Your task to perform on an android device: clear history in the chrome app Image 0: 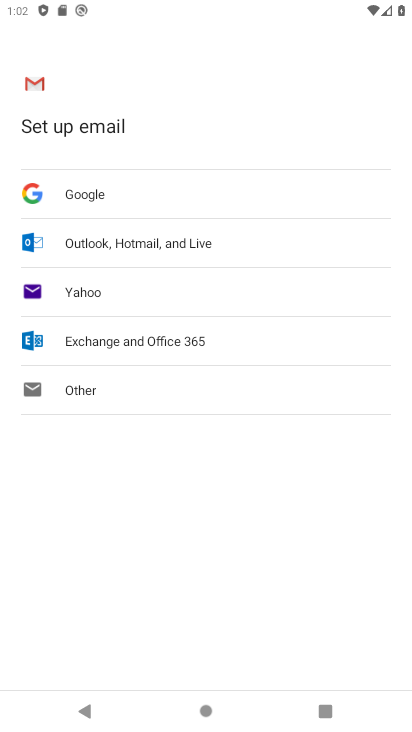
Step 0: press home button
Your task to perform on an android device: clear history in the chrome app Image 1: 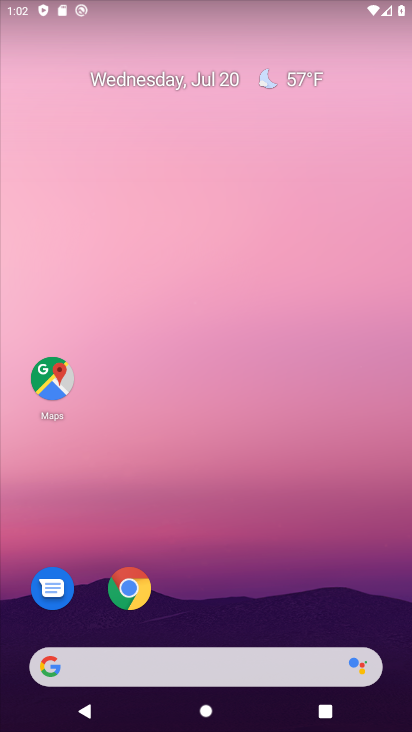
Step 1: click (145, 589)
Your task to perform on an android device: clear history in the chrome app Image 2: 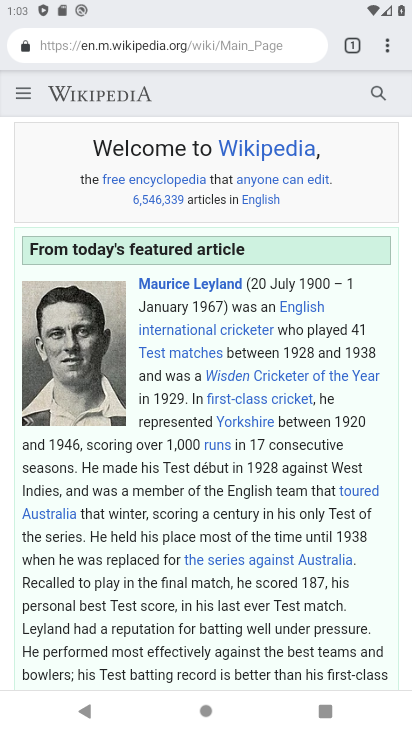
Step 2: click (385, 47)
Your task to perform on an android device: clear history in the chrome app Image 3: 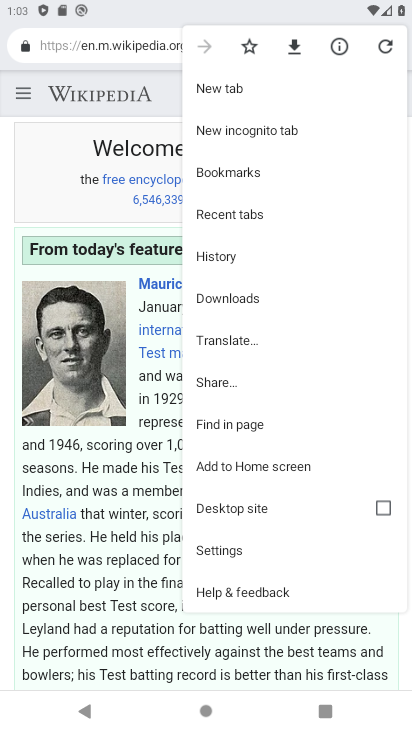
Step 3: click (228, 263)
Your task to perform on an android device: clear history in the chrome app Image 4: 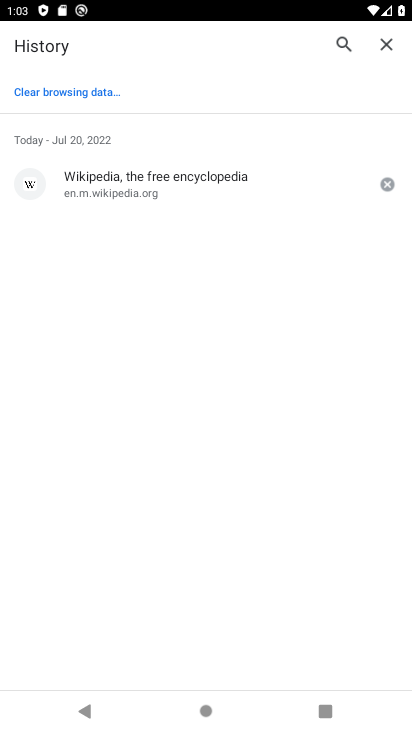
Step 4: click (49, 90)
Your task to perform on an android device: clear history in the chrome app Image 5: 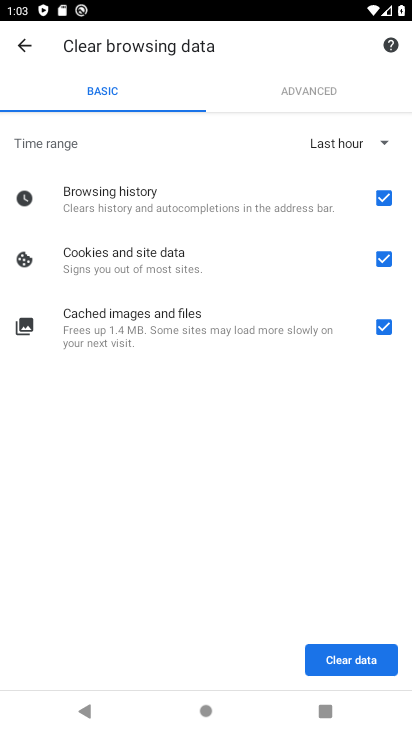
Step 5: click (353, 668)
Your task to perform on an android device: clear history in the chrome app Image 6: 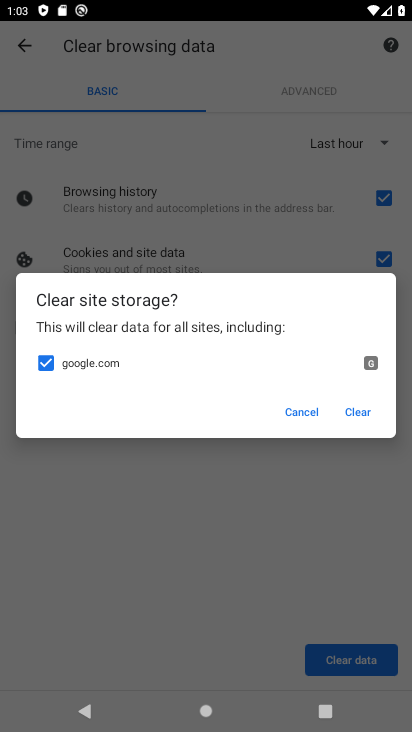
Step 6: click (355, 410)
Your task to perform on an android device: clear history in the chrome app Image 7: 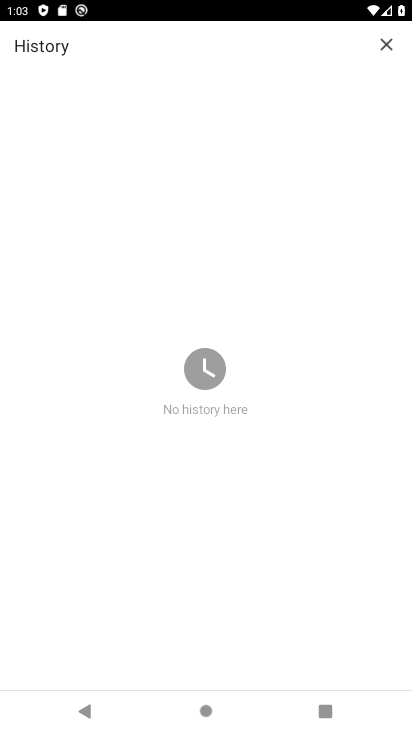
Step 7: task complete